Your task to perform on an android device: Clear the shopping cart on amazon. Image 0: 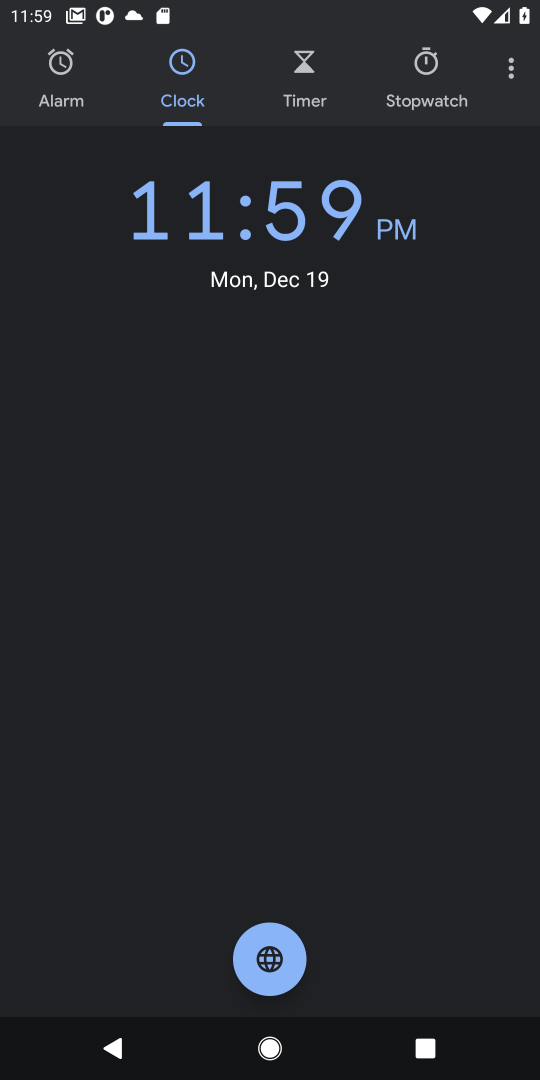
Step 0: press home button
Your task to perform on an android device: Clear the shopping cart on amazon. Image 1: 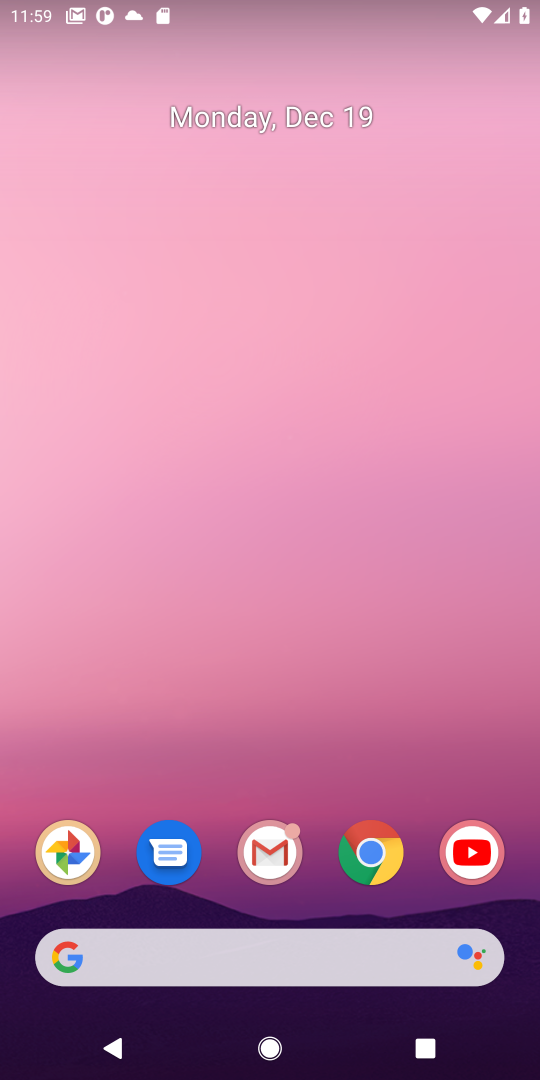
Step 1: click (368, 854)
Your task to perform on an android device: Clear the shopping cart on amazon. Image 2: 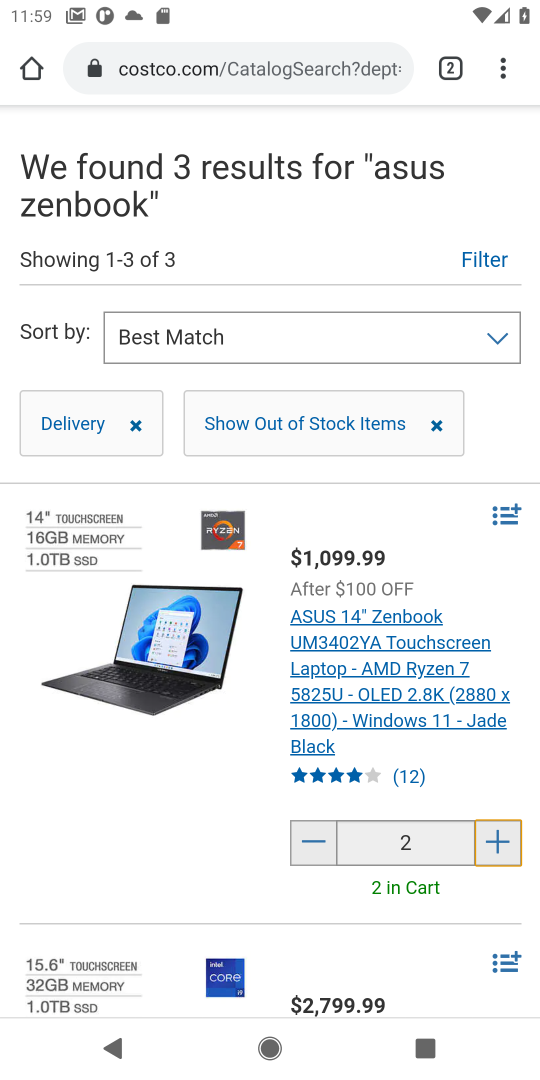
Step 2: click (179, 64)
Your task to perform on an android device: Clear the shopping cart on amazon. Image 3: 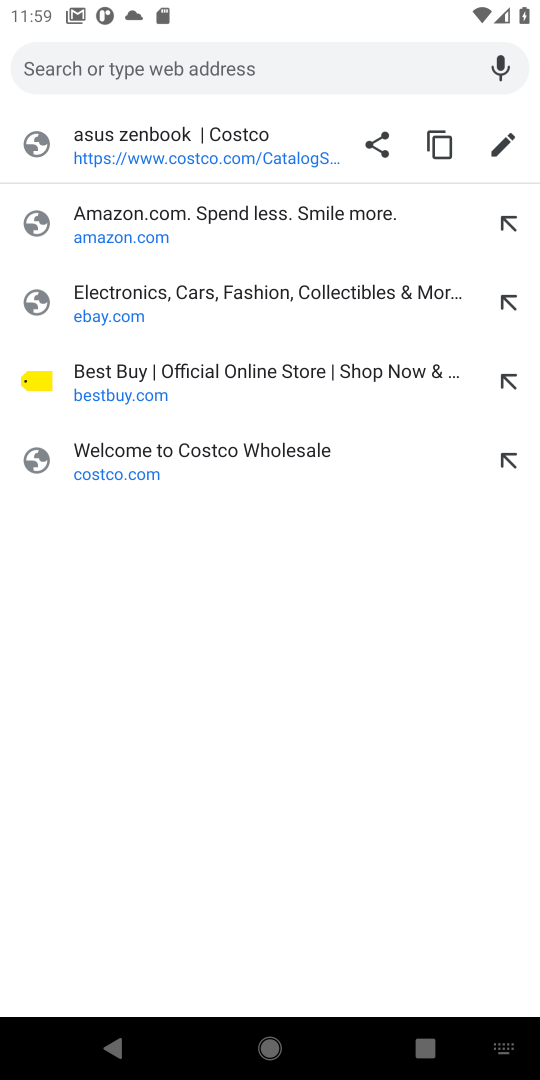
Step 3: click (116, 234)
Your task to perform on an android device: Clear the shopping cart on amazon. Image 4: 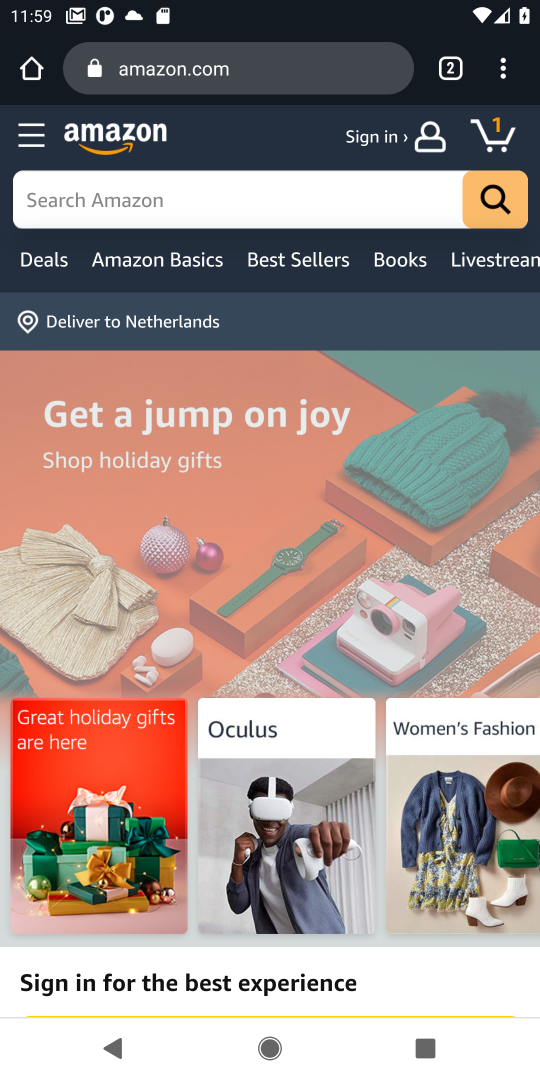
Step 4: click (496, 131)
Your task to perform on an android device: Clear the shopping cart on amazon. Image 5: 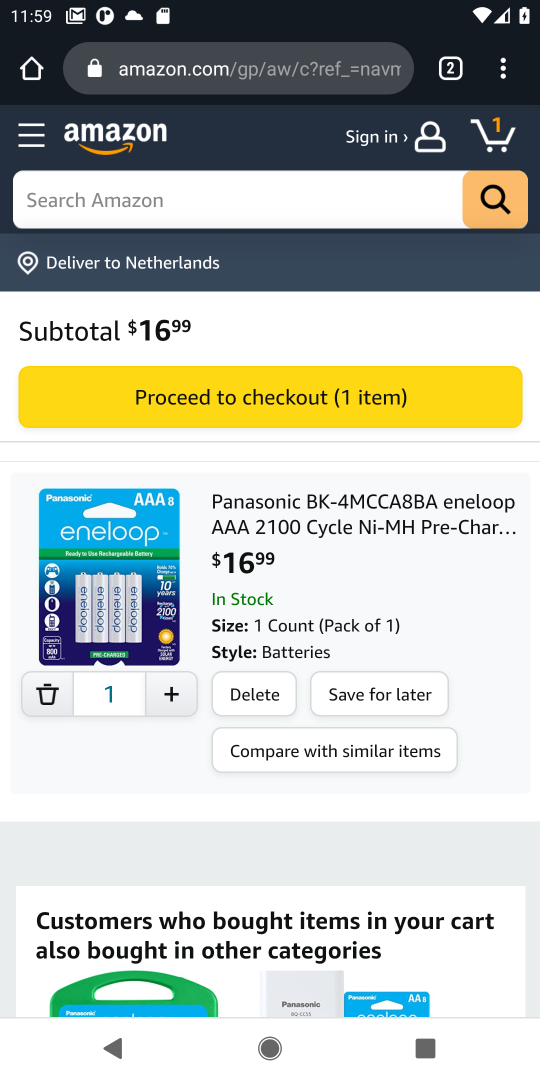
Step 5: click (254, 689)
Your task to perform on an android device: Clear the shopping cart on amazon. Image 6: 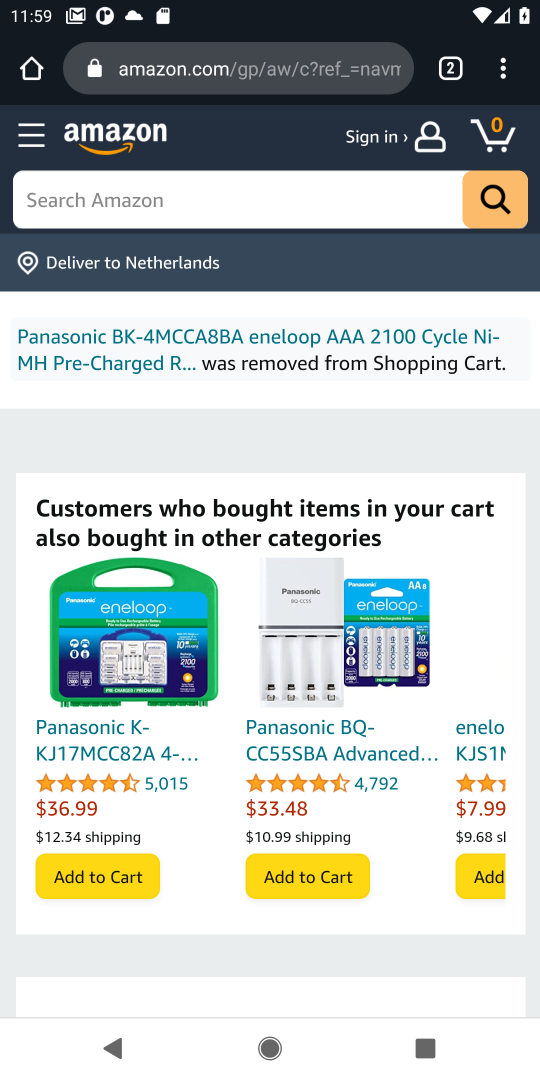
Step 6: task complete